Your task to perform on an android device: change alarm snooze length Image 0: 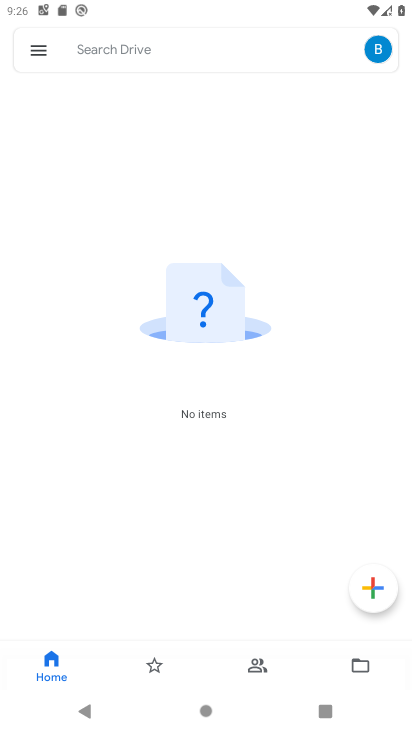
Step 0: press home button
Your task to perform on an android device: change alarm snooze length Image 1: 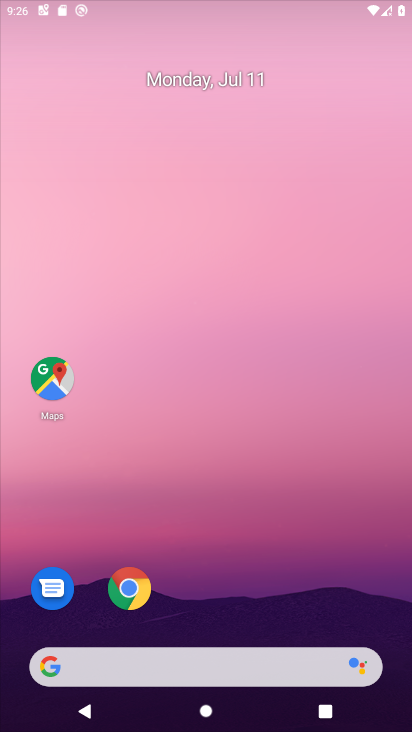
Step 1: drag from (243, 599) to (228, 208)
Your task to perform on an android device: change alarm snooze length Image 2: 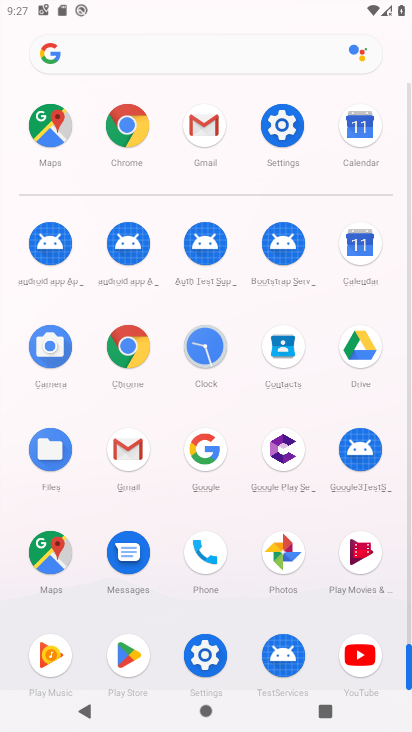
Step 2: click (200, 341)
Your task to perform on an android device: change alarm snooze length Image 3: 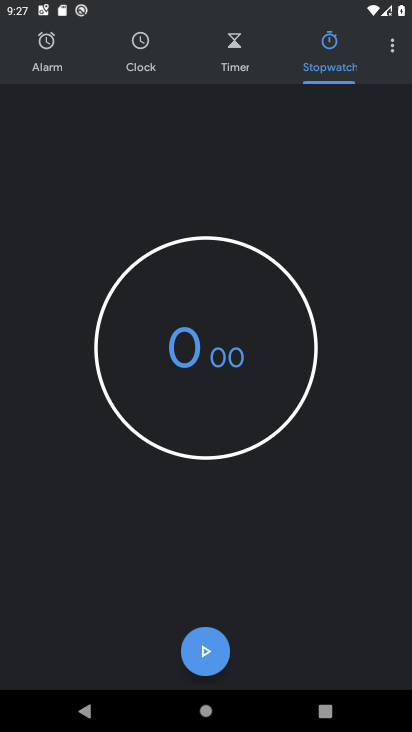
Step 3: click (400, 46)
Your task to perform on an android device: change alarm snooze length Image 4: 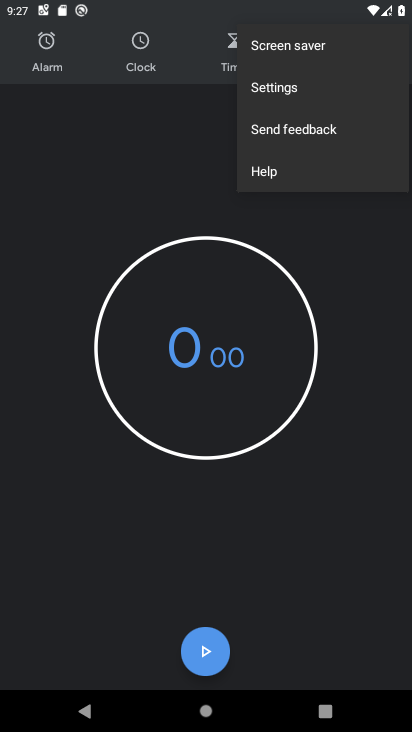
Step 4: click (320, 82)
Your task to perform on an android device: change alarm snooze length Image 5: 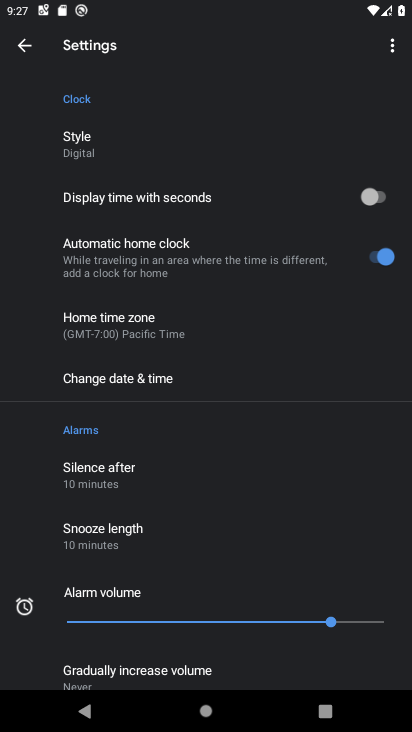
Step 5: click (130, 540)
Your task to perform on an android device: change alarm snooze length Image 6: 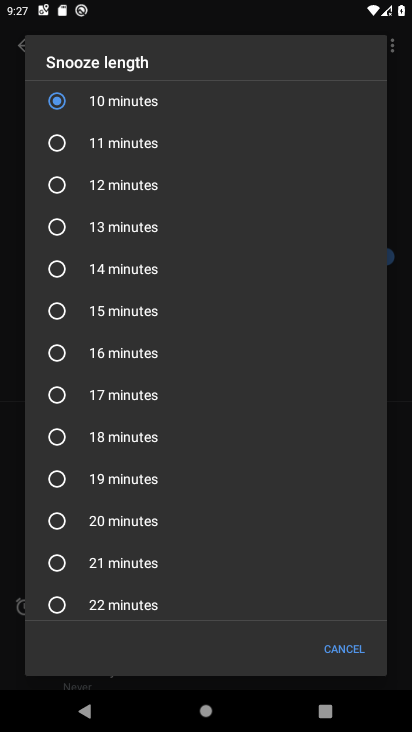
Step 6: click (123, 529)
Your task to perform on an android device: change alarm snooze length Image 7: 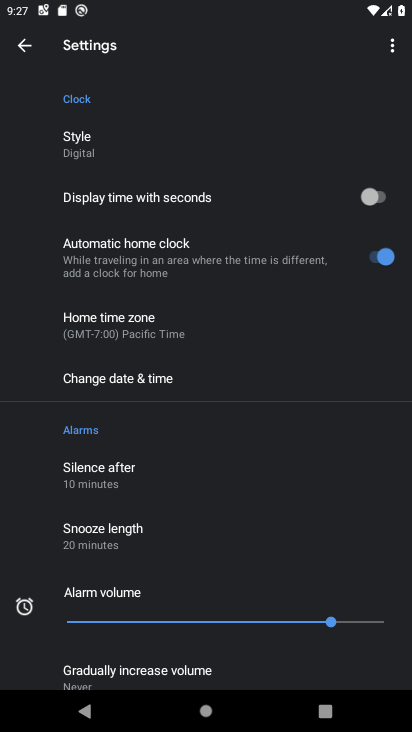
Step 7: task complete